Your task to perform on an android device: toggle javascript in the chrome app Image 0: 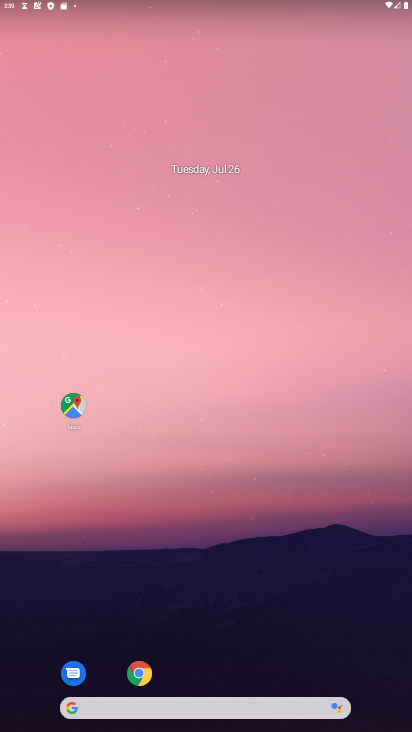
Step 0: click (138, 671)
Your task to perform on an android device: toggle javascript in the chrome app Image 1: 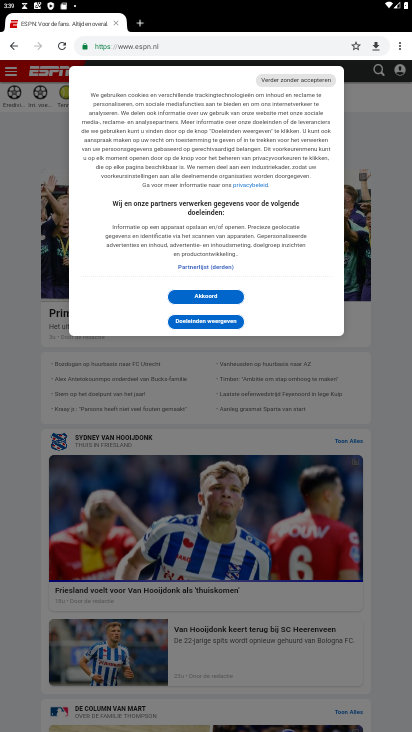
Step 1: click (400, 44)
Your task to perform on an android device: toggle javascript in the chrome app Image 2: 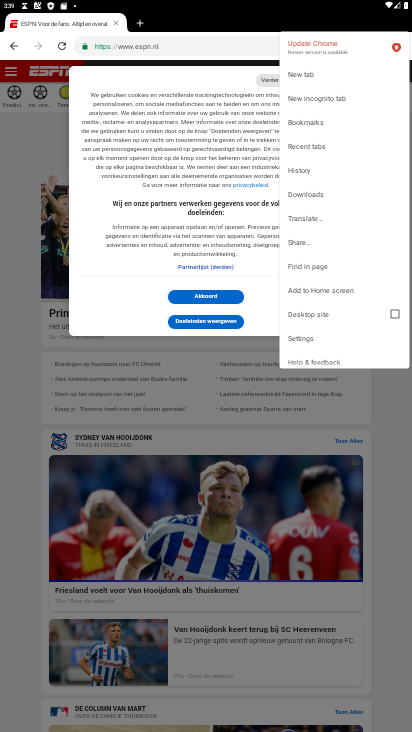
Step 2: click (305, 336)
Your task to perform on an android device: toggle javascript in the chrome app Image 3: 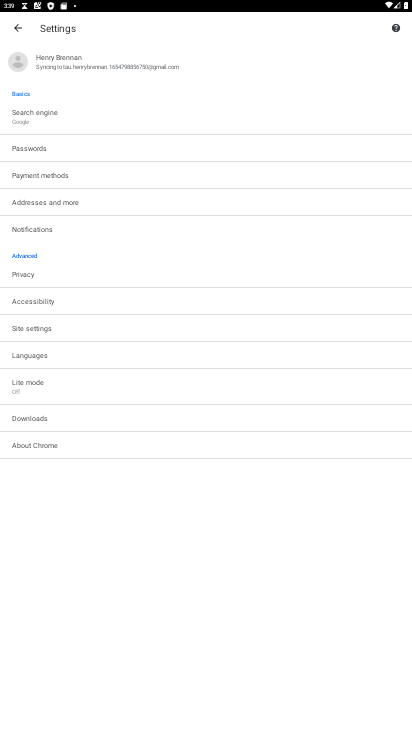
Step 3: click (45, 331)
Your task to perform on an android device: toggle javascript in the chrome app Image 4: 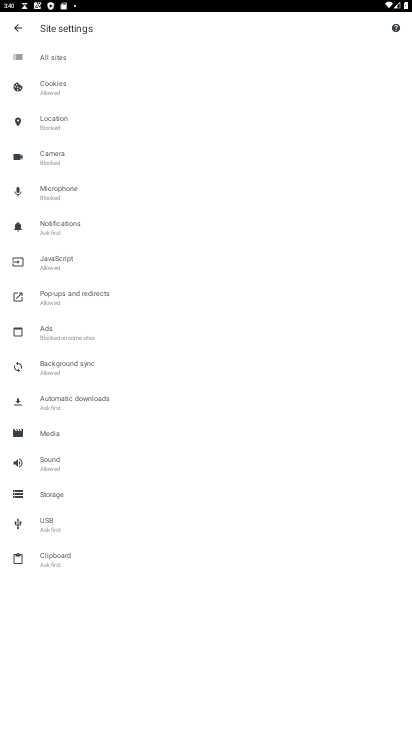
Step 4: click (62, 263)
Your task to perform on an android device: toggle javascript in the chrome app Image 5: 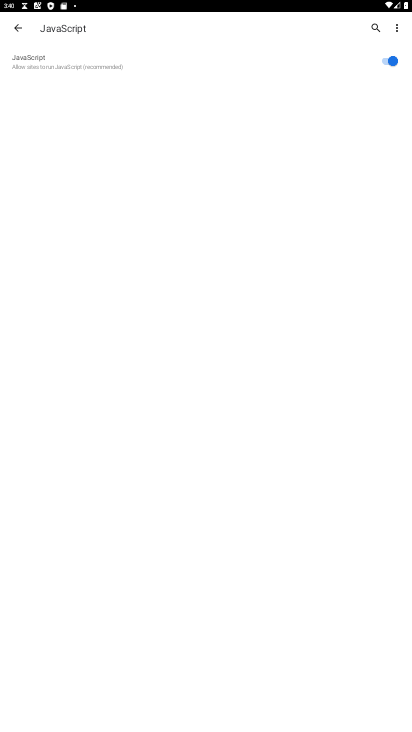
Step 5: click (384, 60)
Your task to perform on an android device: toggle javascript in the chrome app Image 6: 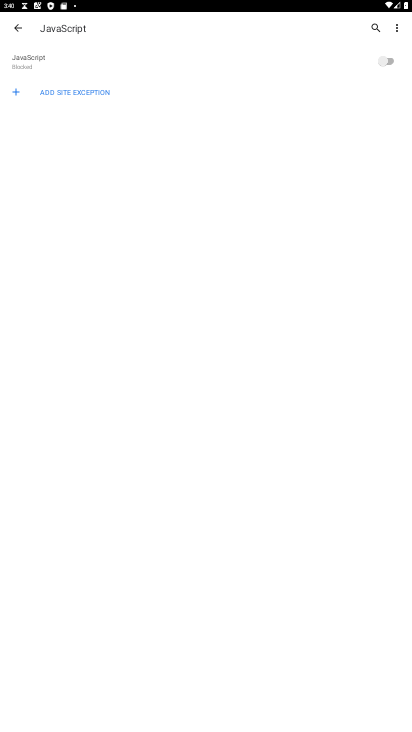
Step 6: task complete